Your task to perform on an android device: Search for Mexican restaurants on Maps Image 0: 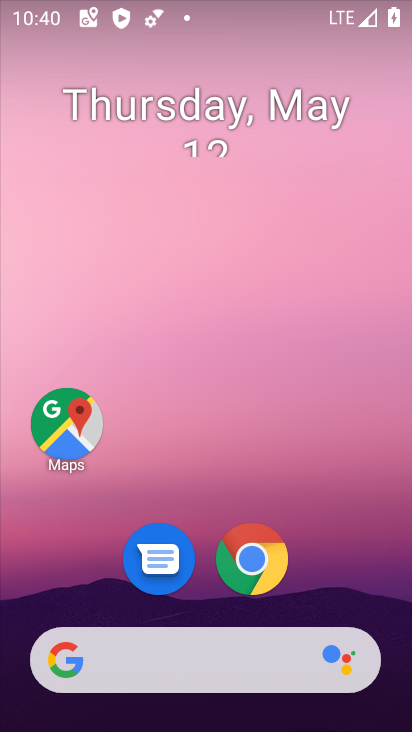
Step 0: drag from (214, 406) to (207, 149)
Your task to perform on an android device: Search for Mexican restaurants on Maps Image 1: 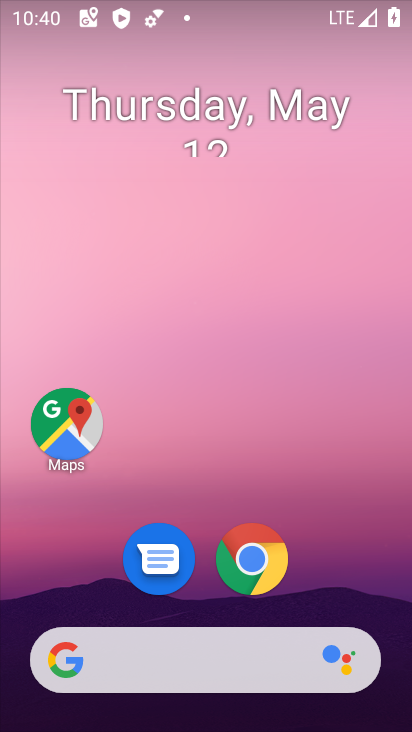
Step 1: click (82, 407)
Your task to perform on an android device: Search for Mexican restaurants on Maps Image 2: 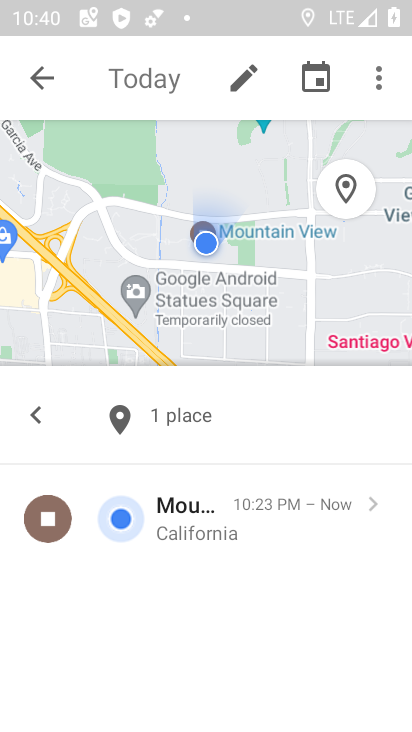
Step 2: click (214, 76)
Your task to perform on an android device: Search for Mexican restaurants on Maps Image 3: 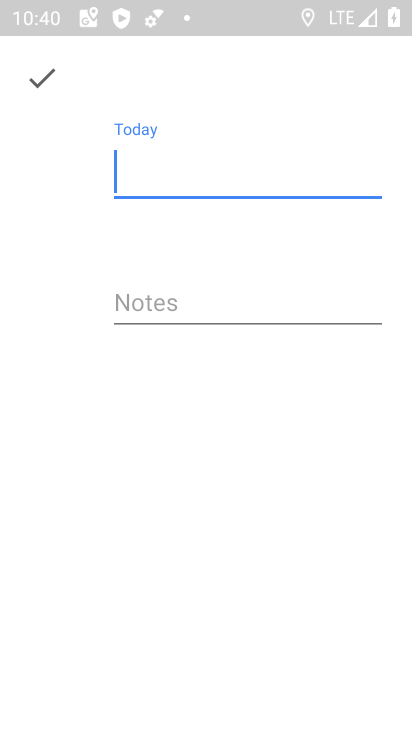
Step 3: press back button
Your task to perform on an android device: Search for Mexican restaurants on Maps Image 4: 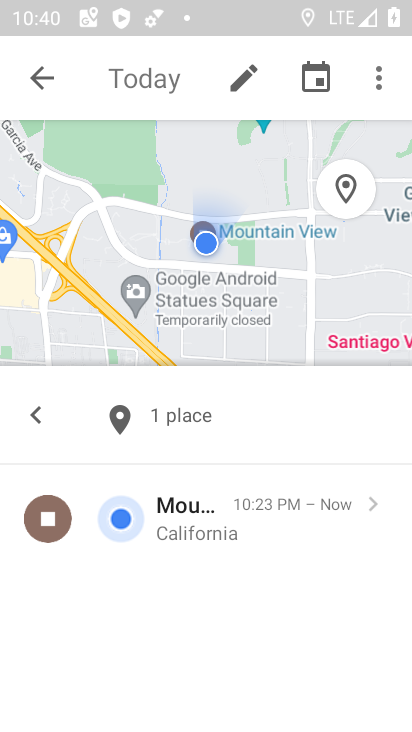
Step 4: click (46, 70)
Your task to perform on an android device: Search for Mexican restaurants on Maps Image 5: 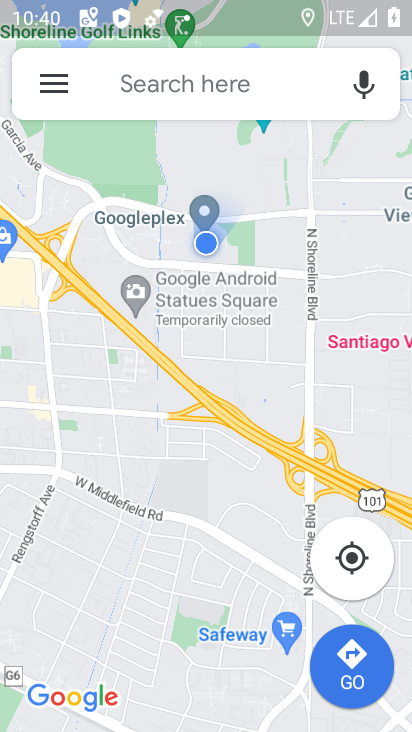
Step 5: click (164, 72)
Your task to perform on an android device: Search for Mexican restaurants on Maps Image 6: 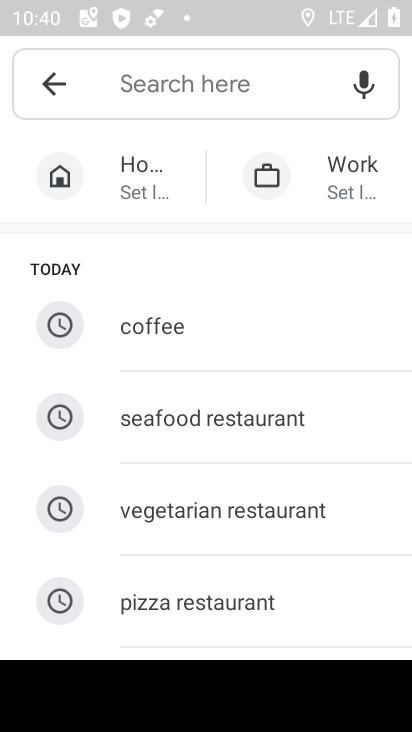
Step 6: type "Mexican restaurants"
Your task to perform on an android device: Search for Mexican restaurants on Maps Image 7: 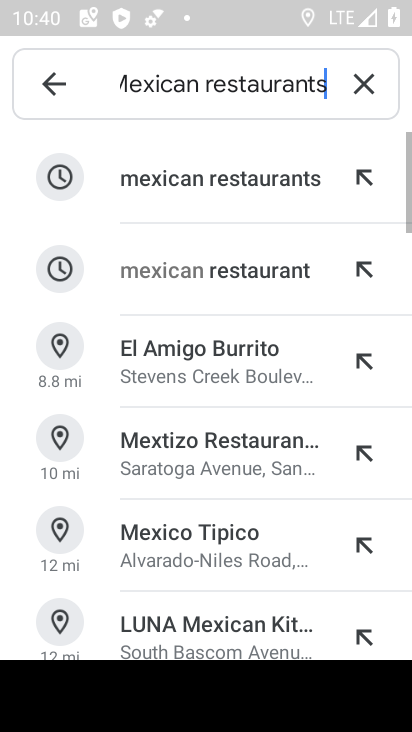
Step 7: click (202, 163)
Your task to perform on an android device: Search for Mexican restaurants on Maps Image 8: 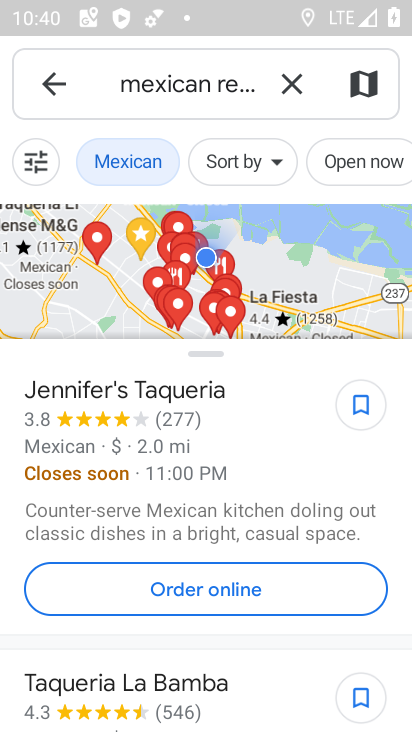
Step 8: task complete